Your task to perform on an android device: toggle notification dots Image 0: 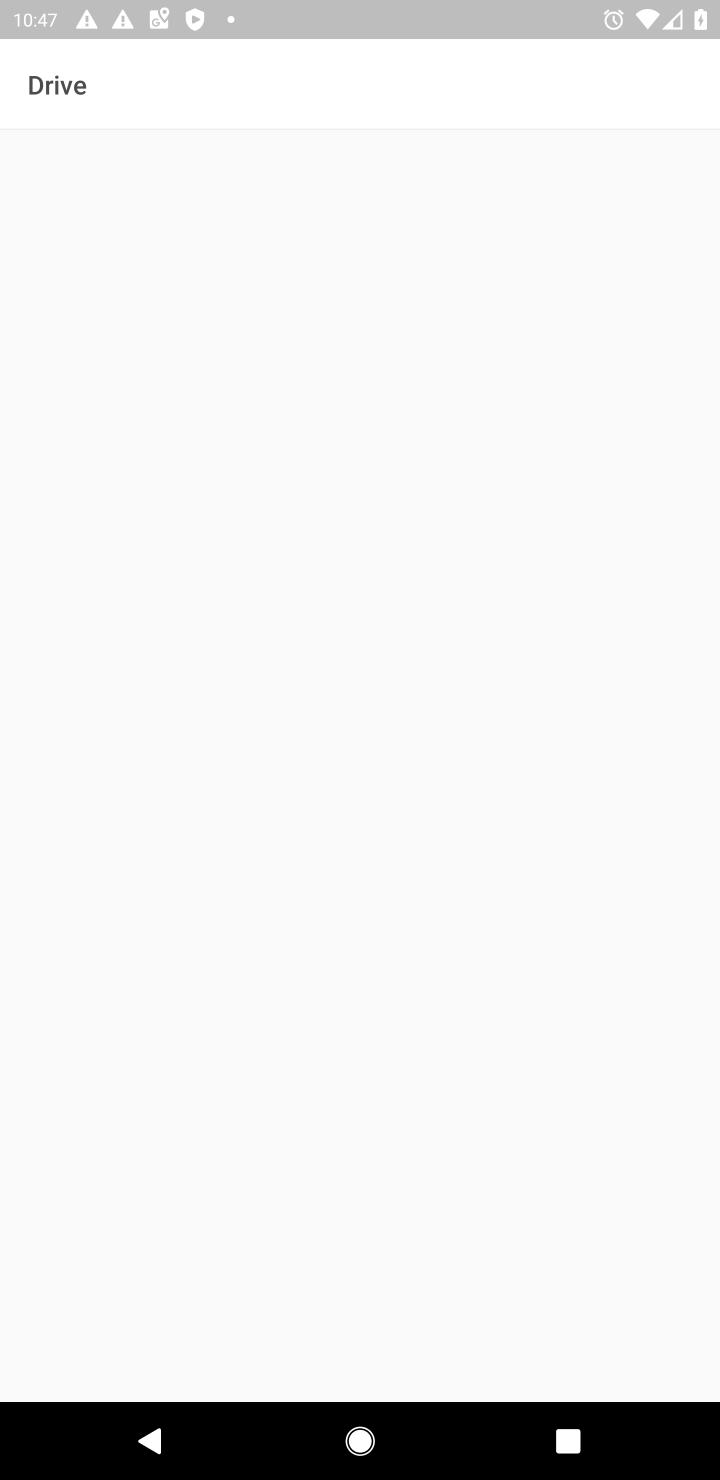
Step 0: press home button
Your task to perform on an android device: toggle notification dots Image 1: 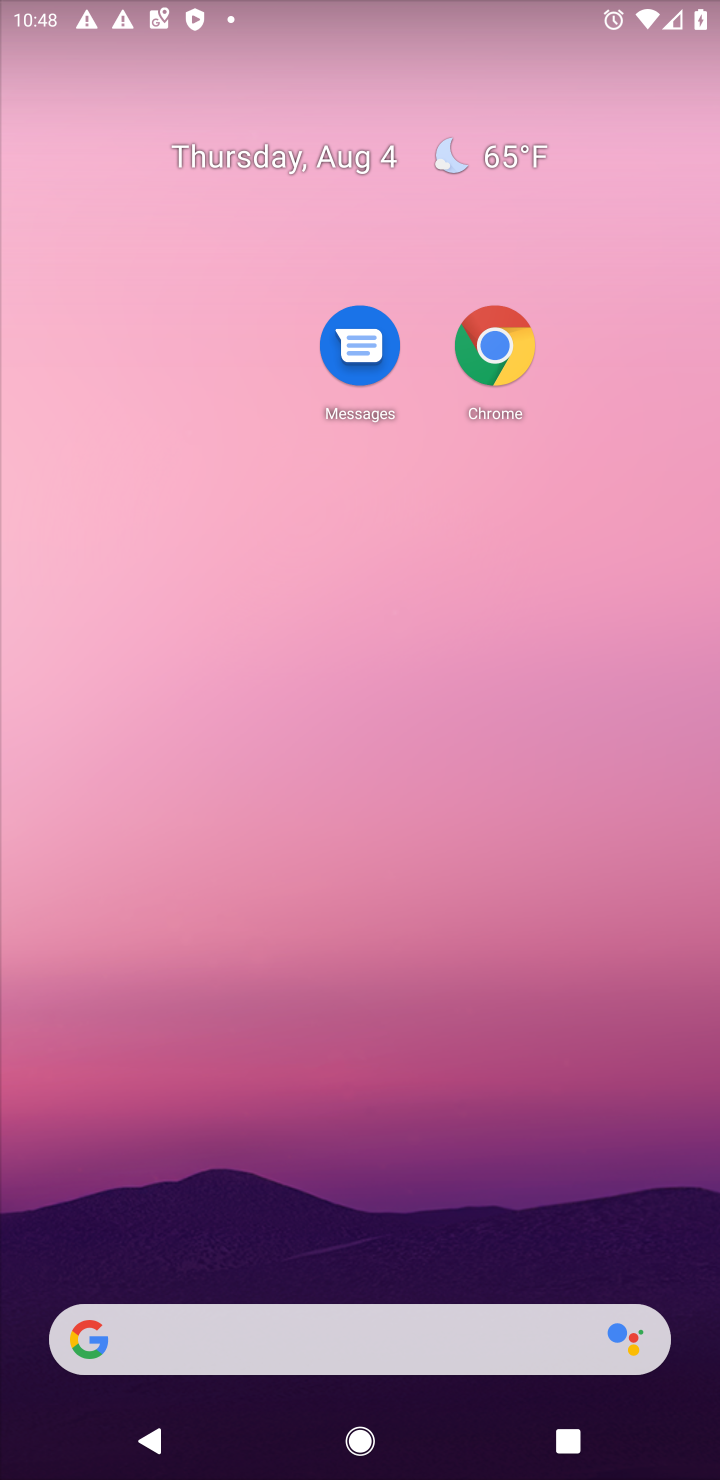
Step 1: drag from (332, 1086) to (459, 5)
Your task to perform on an android device: toggle notification dots Image 2: 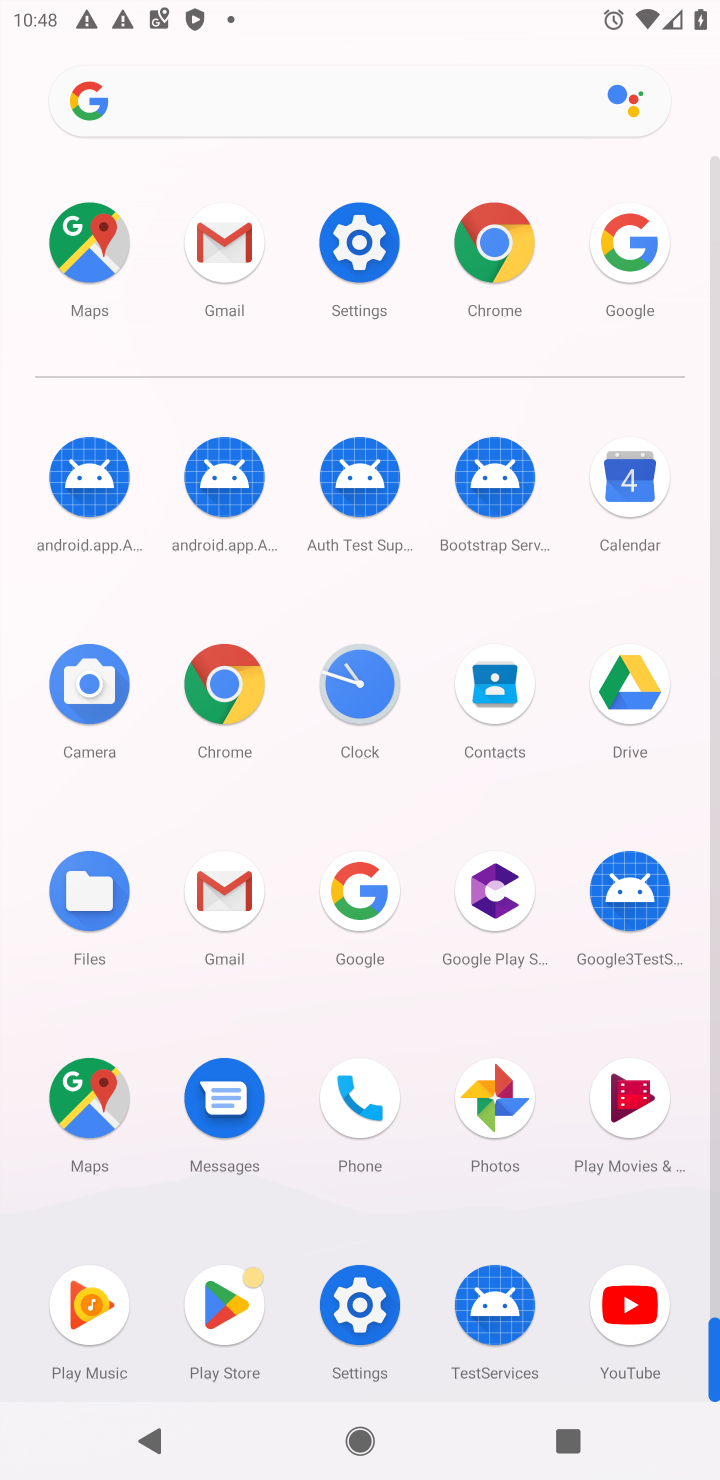
Step 2: click (348, 265)
Your task to perform on an android device: toggle notification dots Image 3: 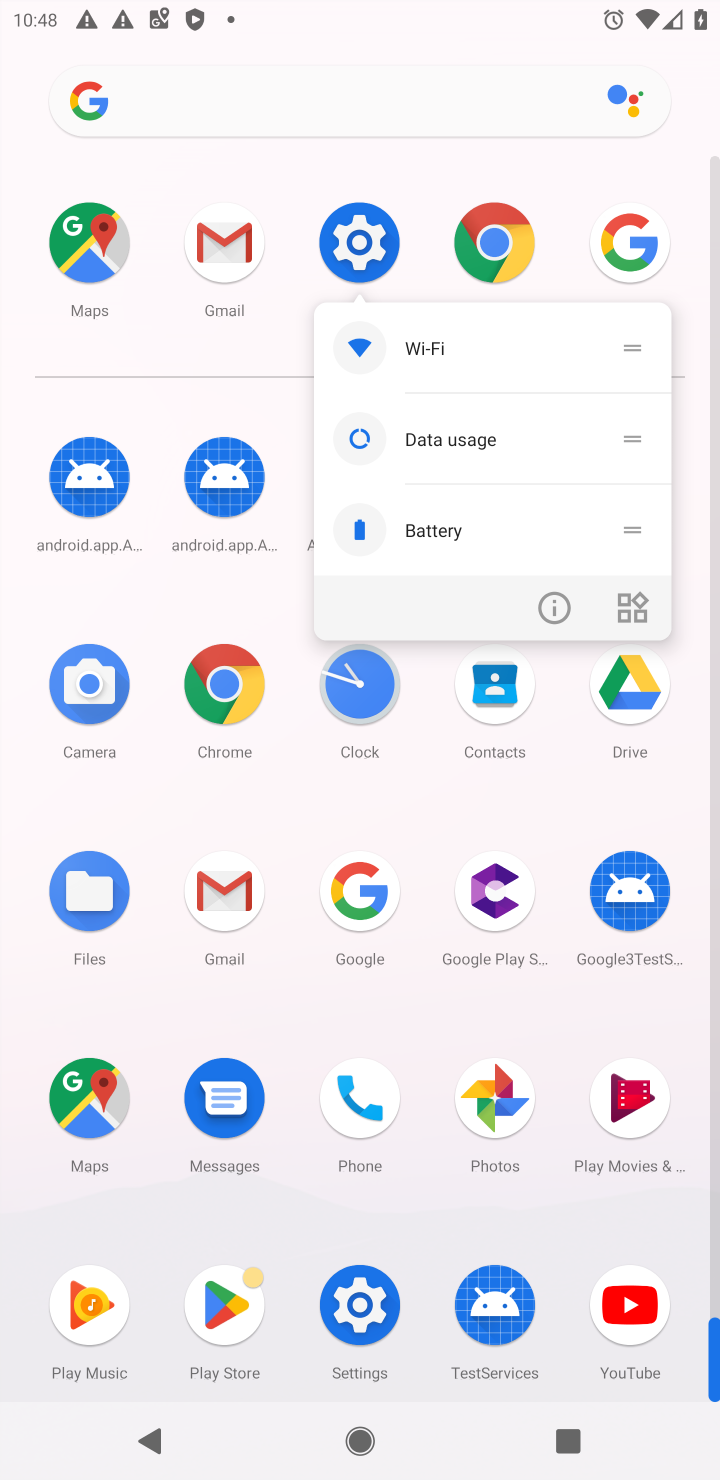
Step 3: click (345, 260)
Your task to perform on an android device: toggle notification dots Image 4: 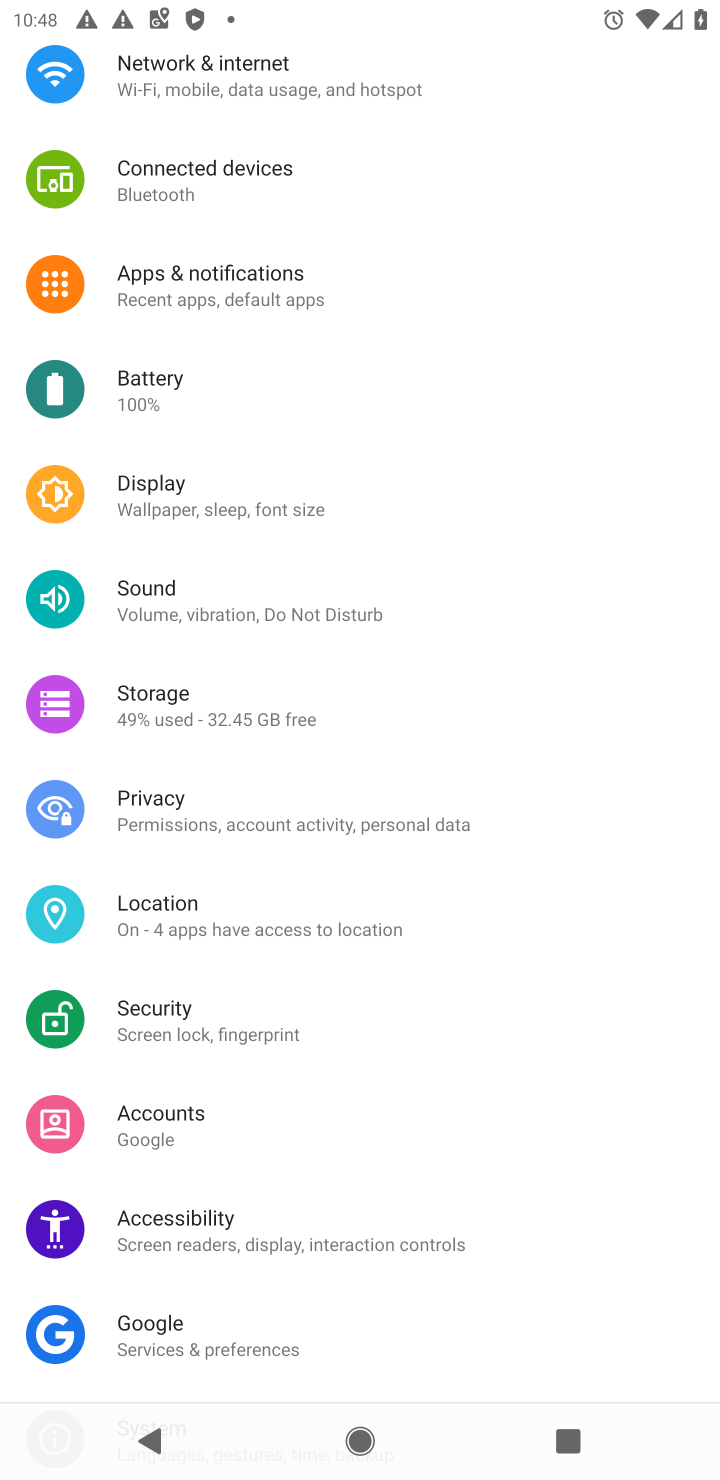
Step 4: drag from (301, 301) to (222, 1263)
Your task to perform on an android device: toggle notification dots Image 5: 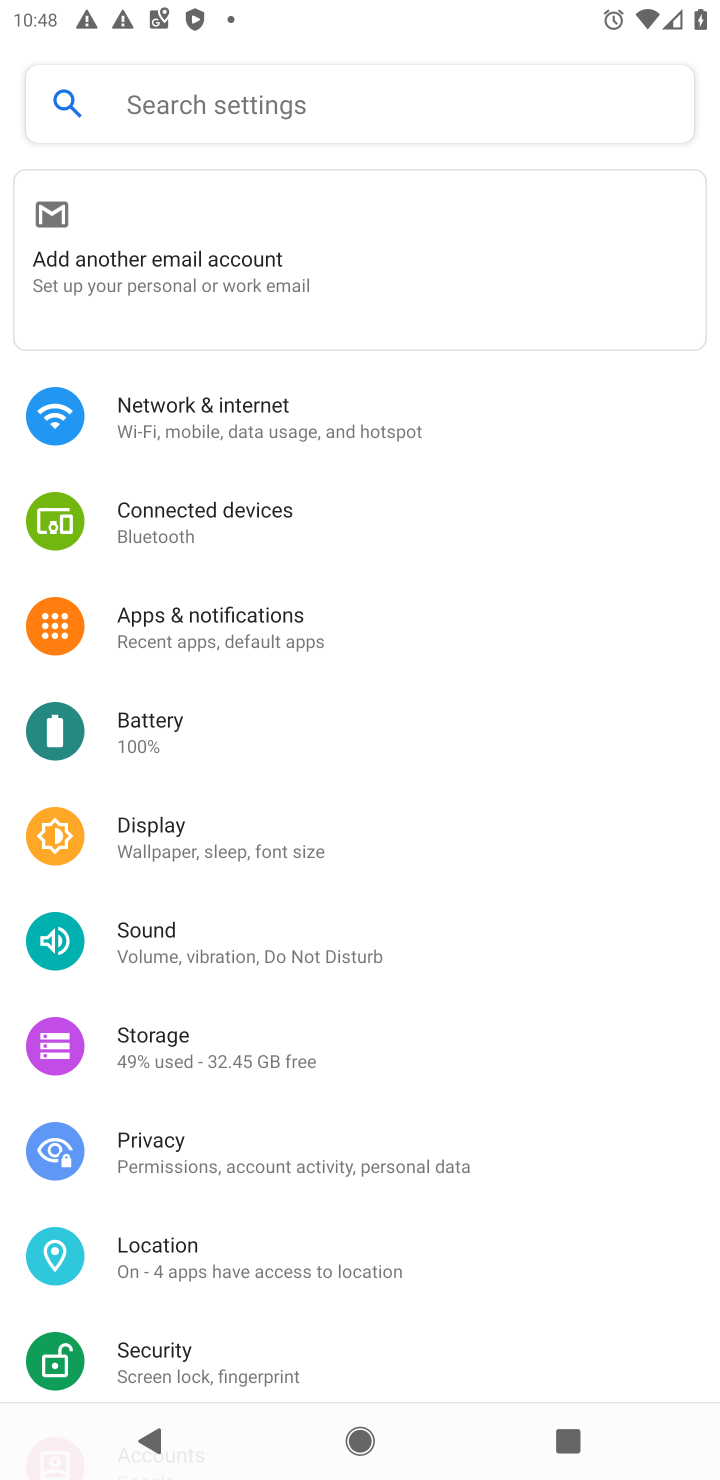
Step 5: click (228, 631)
Your task to perform on an android device: toggle notification dots Image 6: 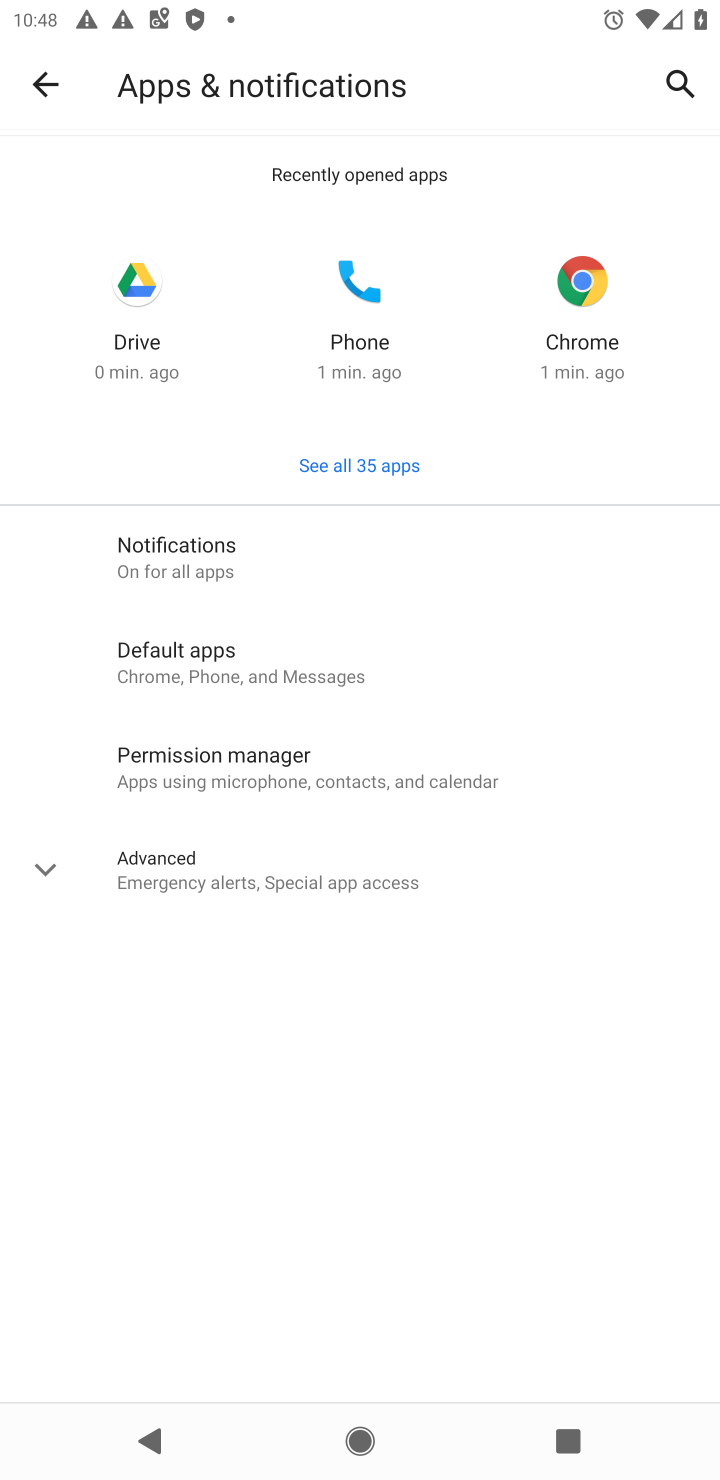
Step 6: click (201, 561)
Your task to perform on an android device: toggle notification dots Image 7: 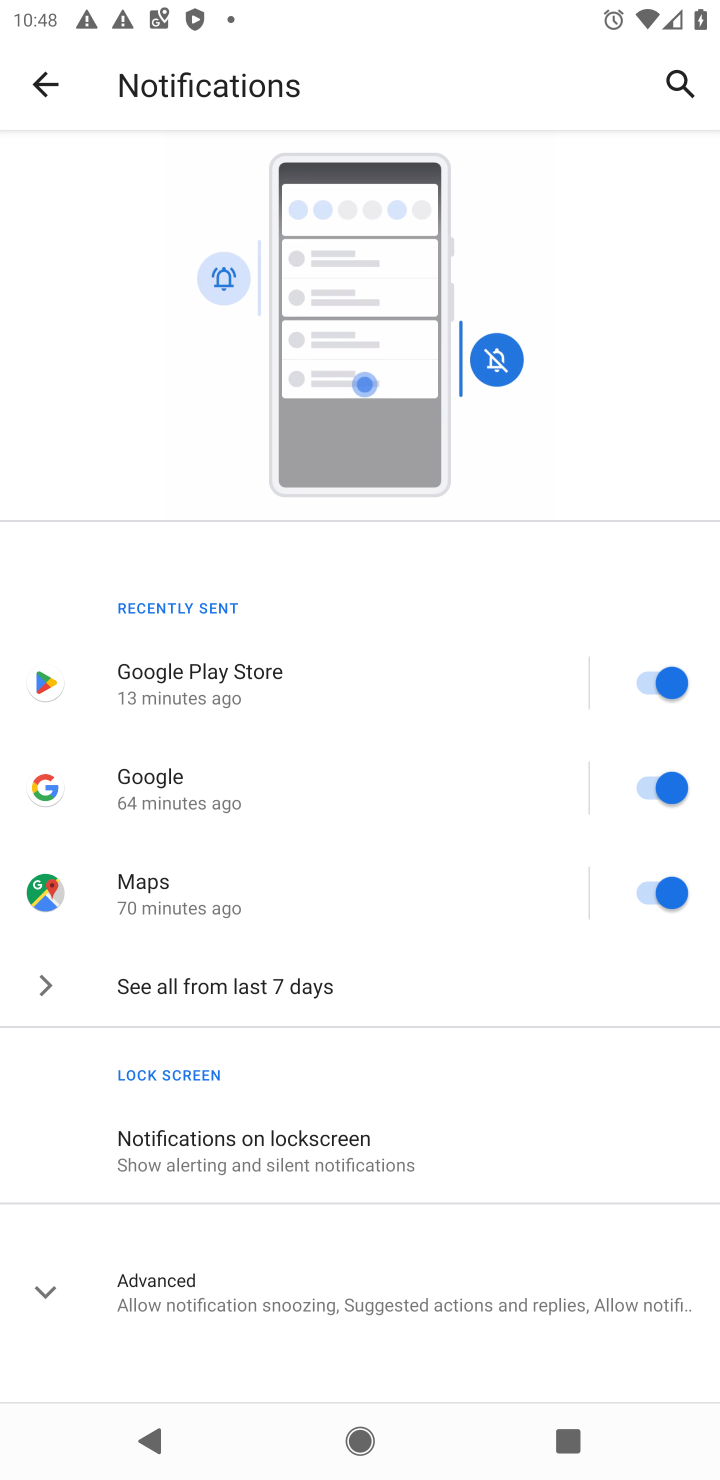
Step 7: drag from (460, 1256) to (442, 486)
Your task to perform on an android device: toggle notification dots Image 8: 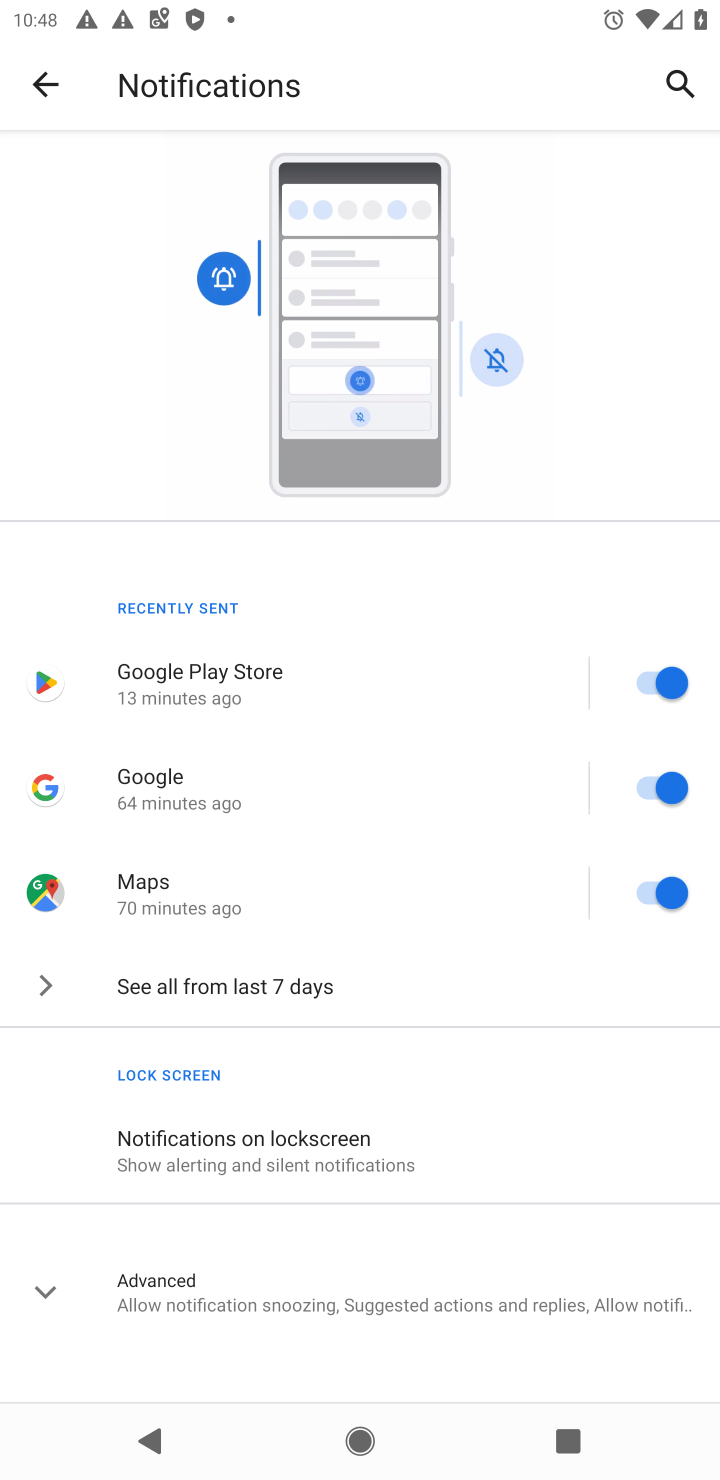
Step 8: click (216, 1292)
Your task to perform on an android device: toggle notification dots Image 9: 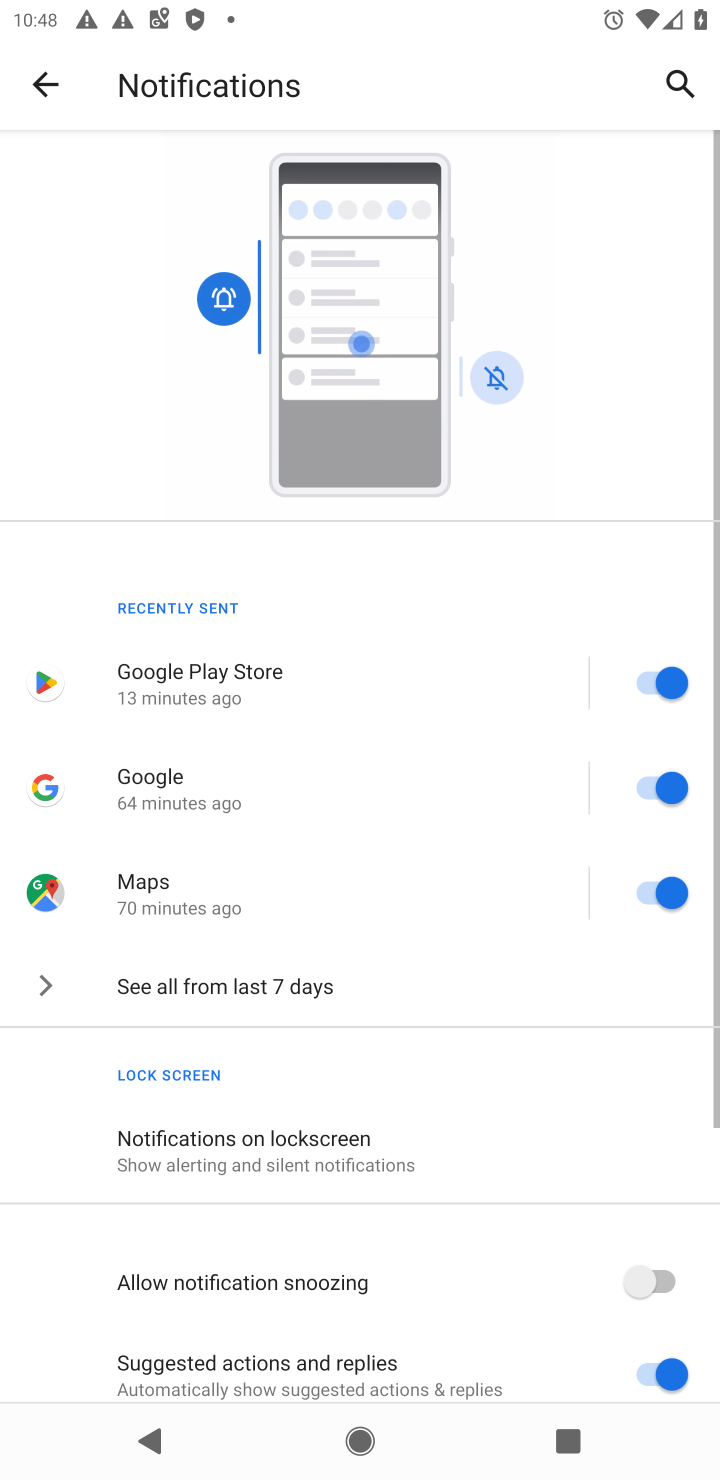
Step 9: drag from (322, 1284) to (468, 451)
Your task to perform on an android device: toggle notification dots Image 10: 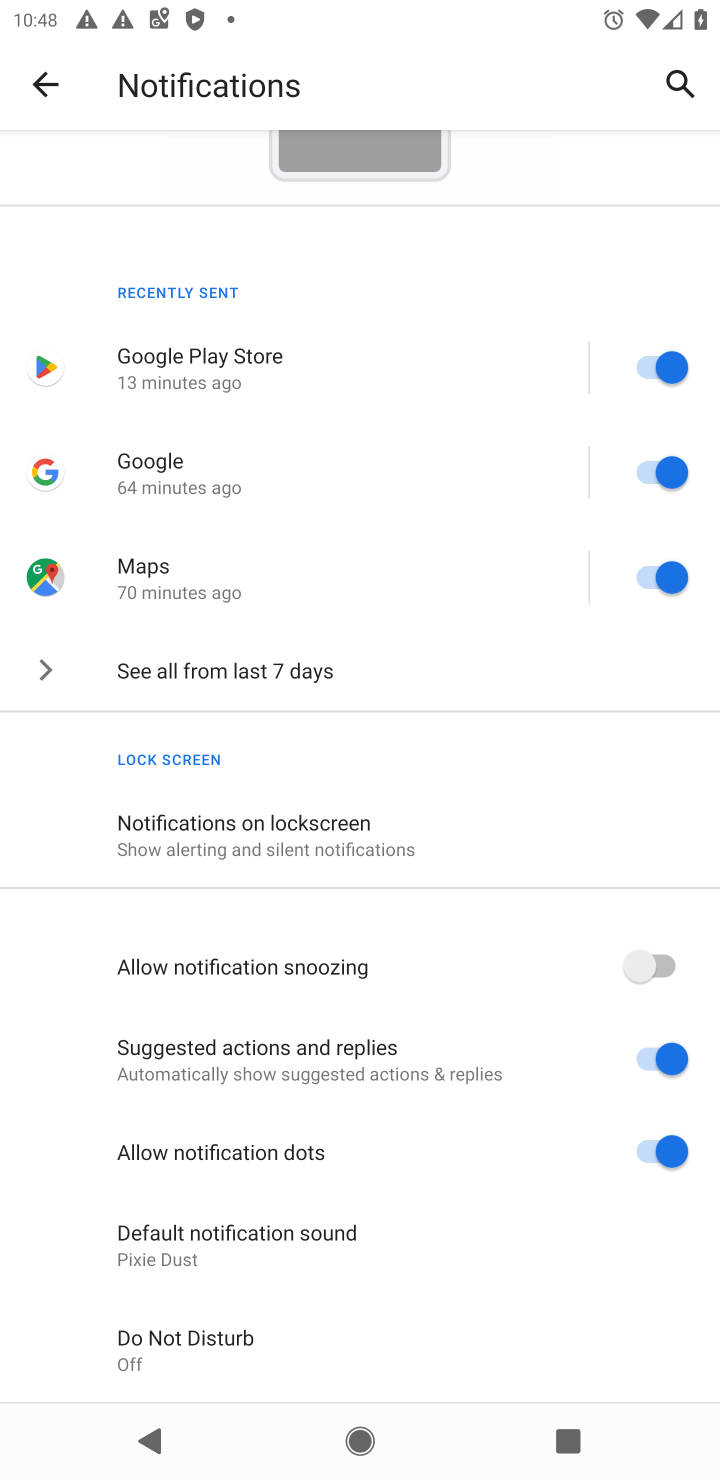
Step 10: click (664, 1148)
Your task to perform on an android device: toggle notification dots Image 11: 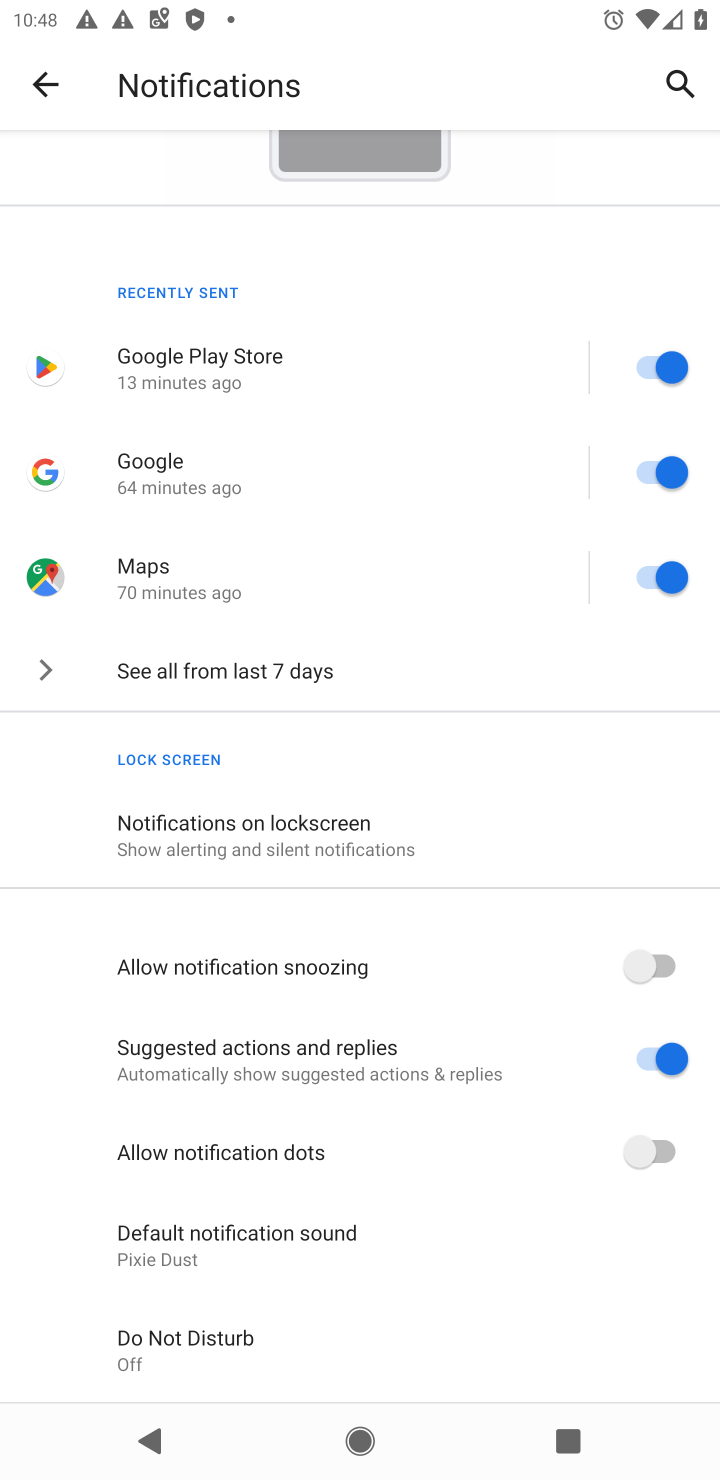
Step 11: task complete